Your task to perform on an android device: turn on the 12-hour format for clock Image 0: 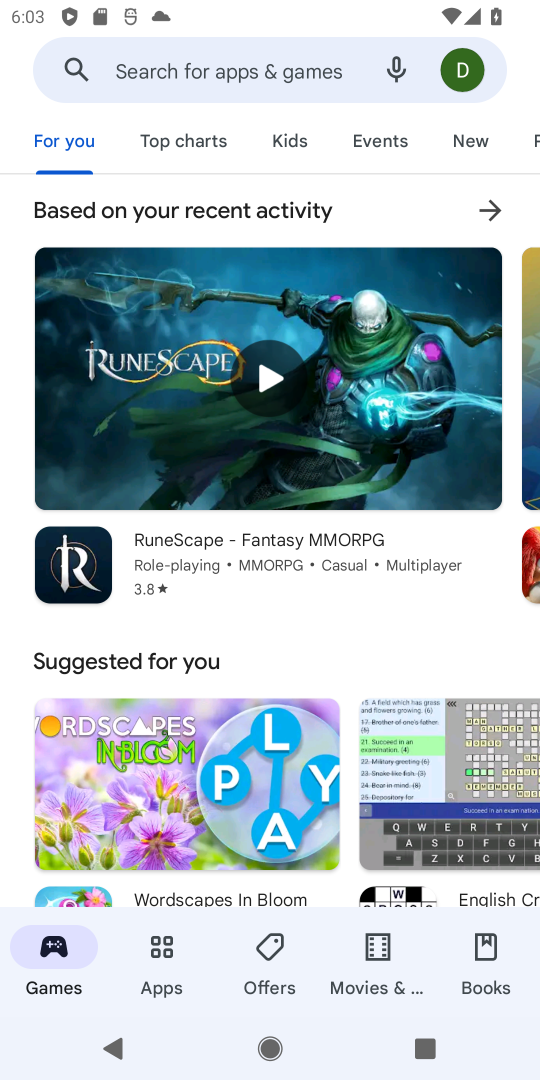
Step 0: press back button
Your task to perform on an android device: turn on the 12-hour format for clock Image 1: 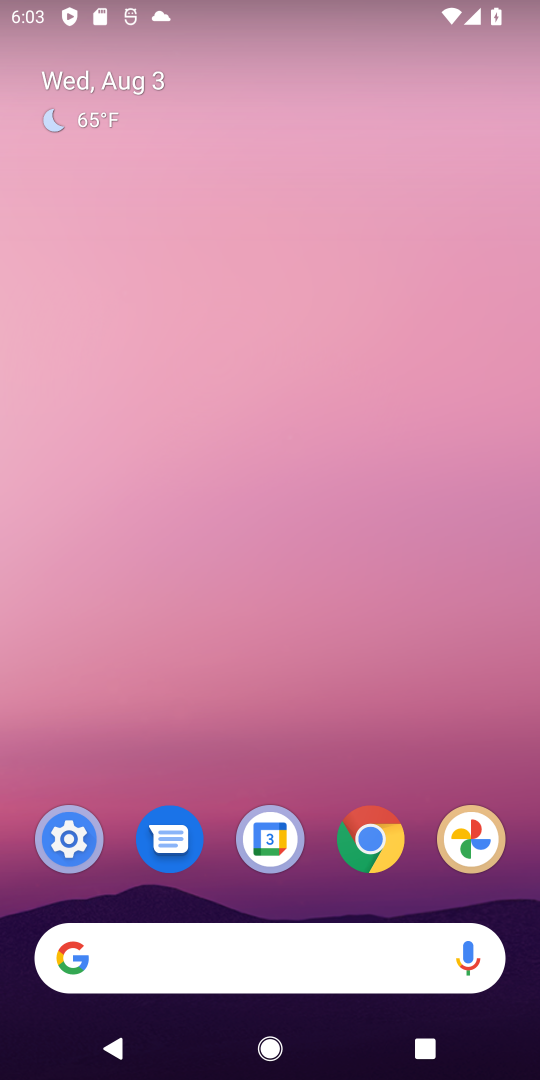
Step 1: drag from (256, 621) to (364, 137)
Your task to perform on an android device: turn on the 12-hour format for clock Image 2: 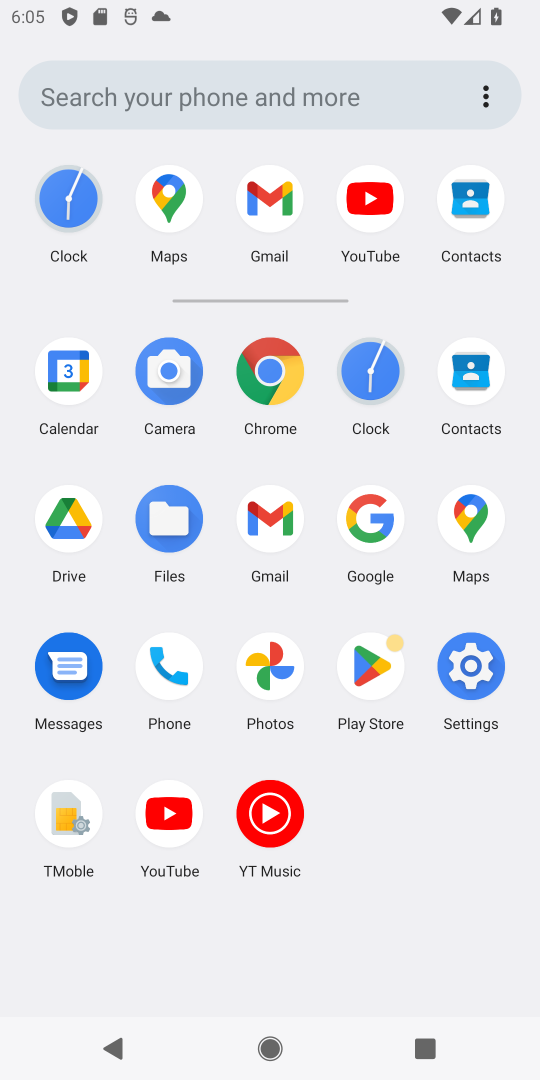
Step 2: click (365, 387)
Your task to perform on an android device: turn on the 12-hour format for clock Image 3: 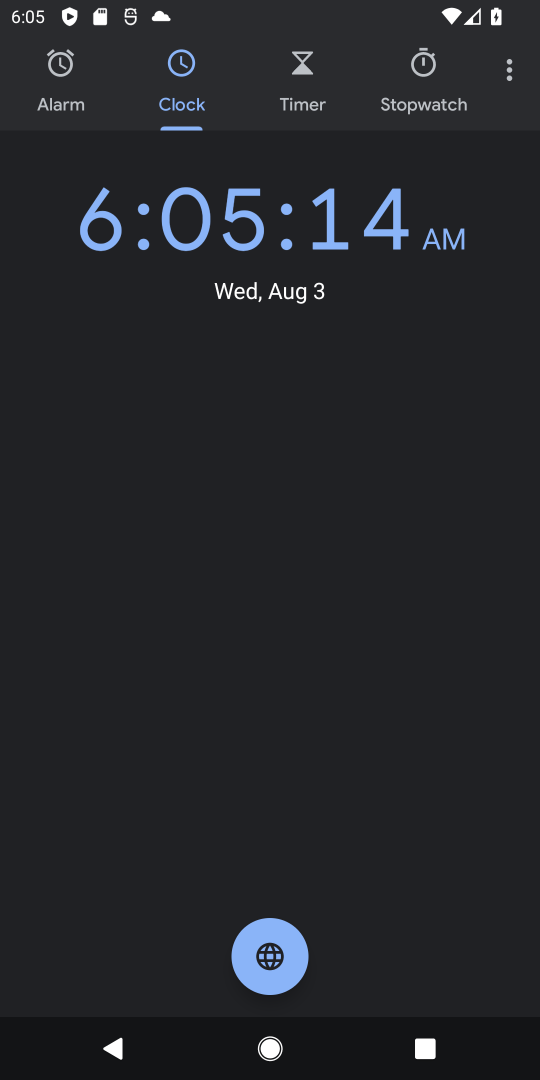
Step 3: click (519, 63)
Your task to perform on an android device: turn on the 12-hour format for clock Image 4: 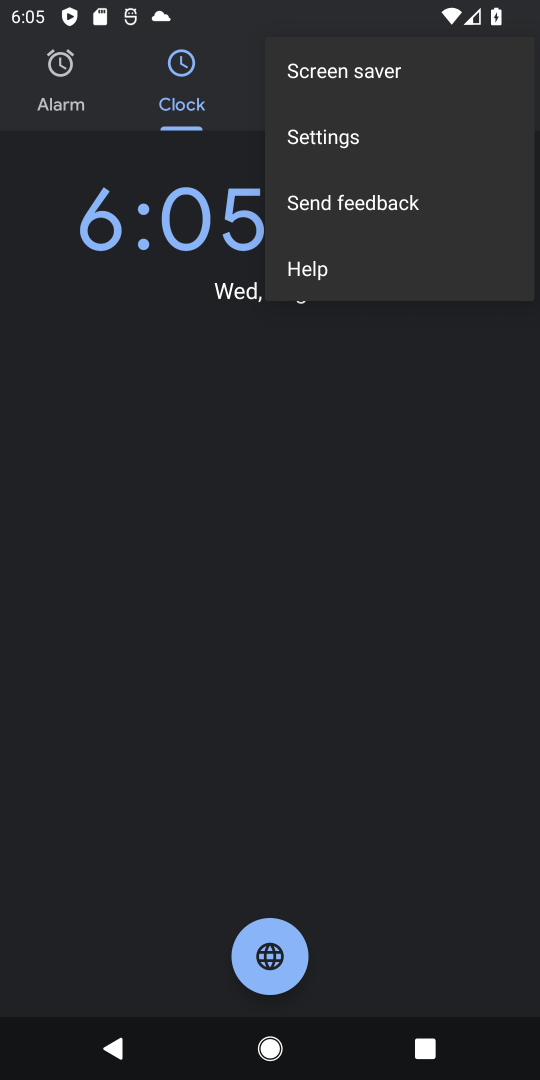
Step 4: click (328, 142)
Your task to perform on an android device: turn on the 12-hour format for clock Image 5: 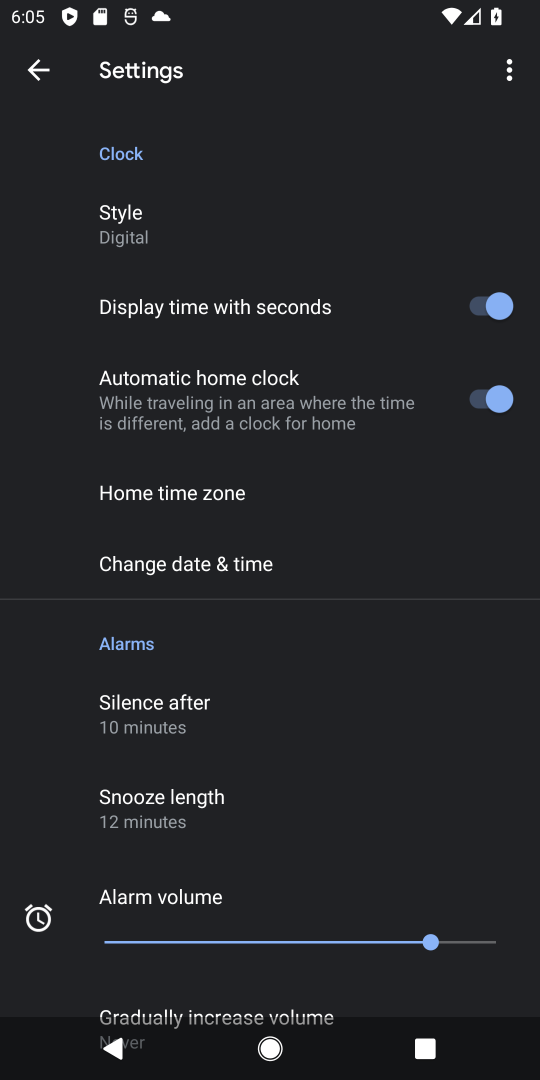
Step 5: drag from (256, 824) to (421, 14)
Your task to perform on an android device: turn on the 12-hour format for clock Image 6: 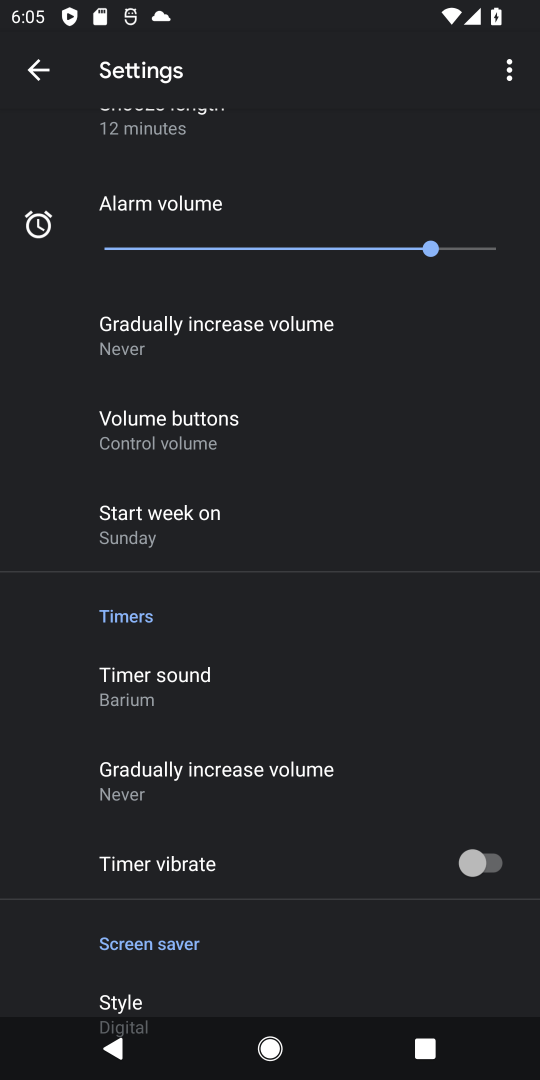
Step 6: drag from (220, 860) to (377, 226)
Your task to perform on an android device: turn on the 12-hour format for clock Image 7: 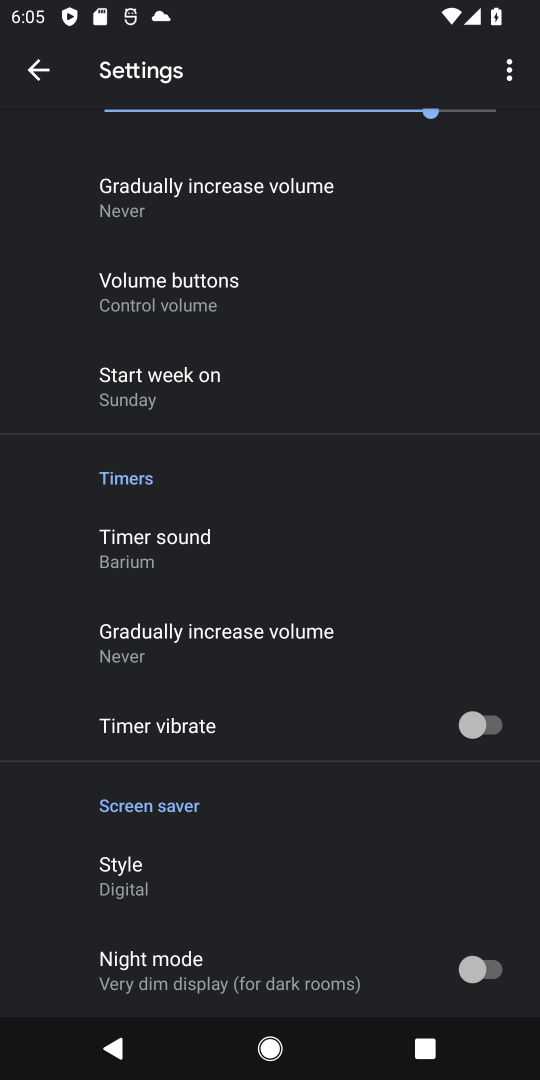
Step 7: drag from (257, 894) to (396, 369)
Your task to perform on an android device: turn on the 12-hour format for clock Image 8: 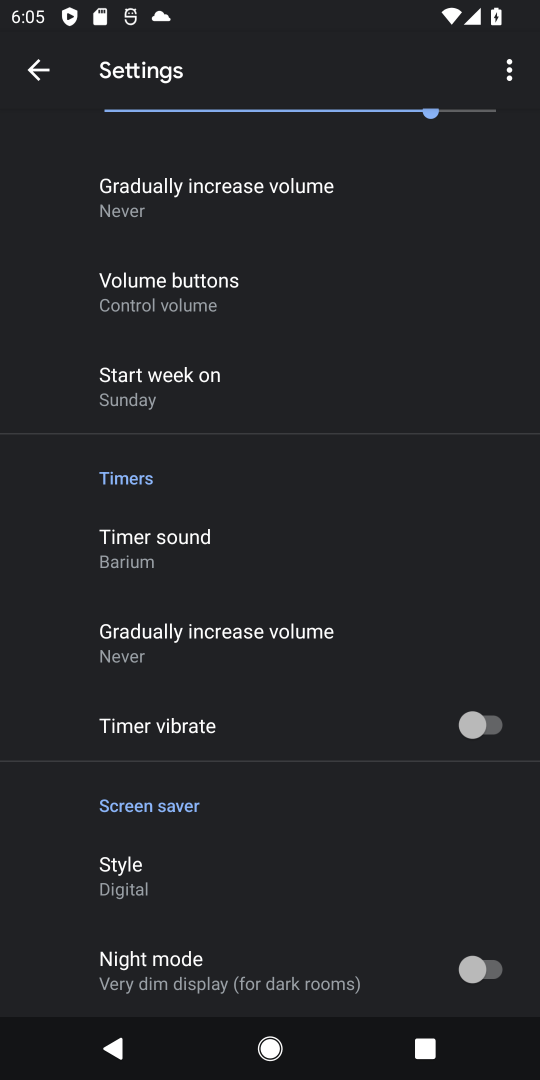
Step 8: drag from (265, 874) to (281, 1015)
Your task to perform on an android device: turn on the 12-hour format for clock Image 9: 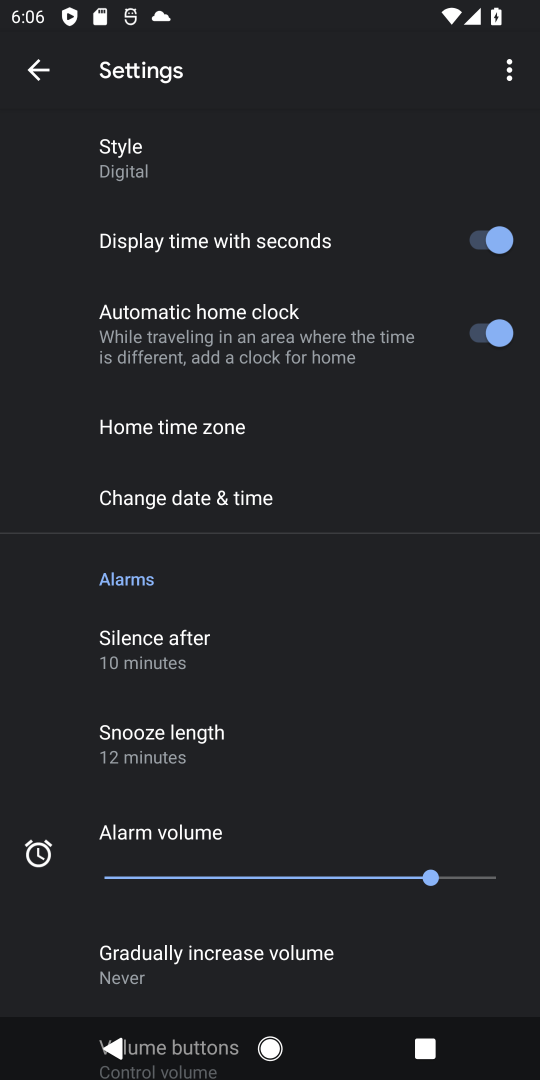
Step 9: click (166, 496)
Your task to perform on an android device: turn on the 12-hour format for clock Image 10: 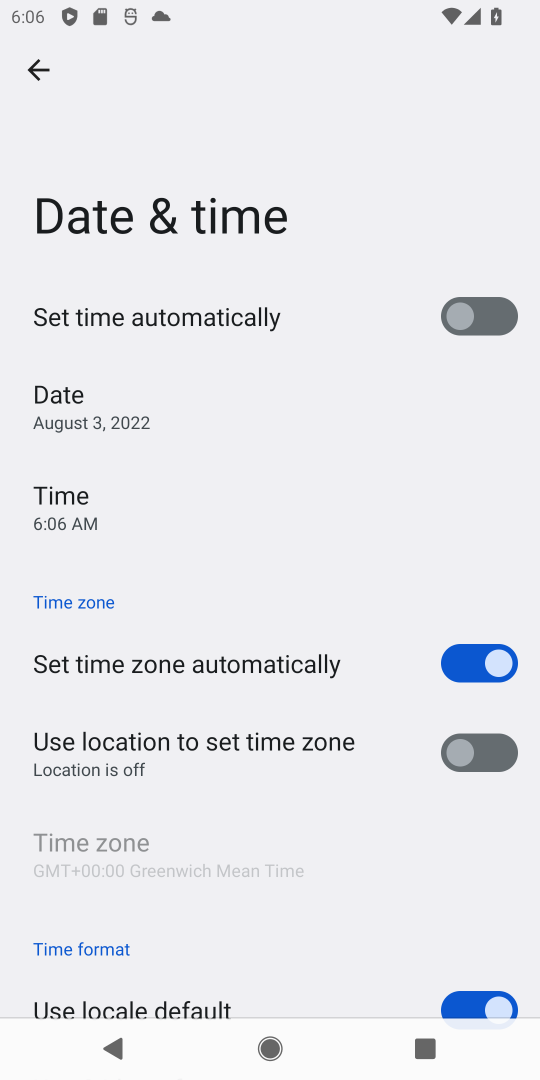
Step 10: task complete